Your task to perform on an android device: toggle location history Image 0: 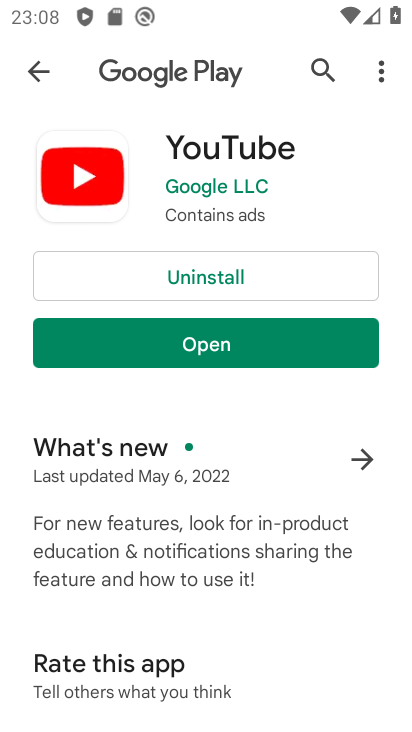
Step 0: press home button
Your task to perform on an android device: toggle location history Image 1: 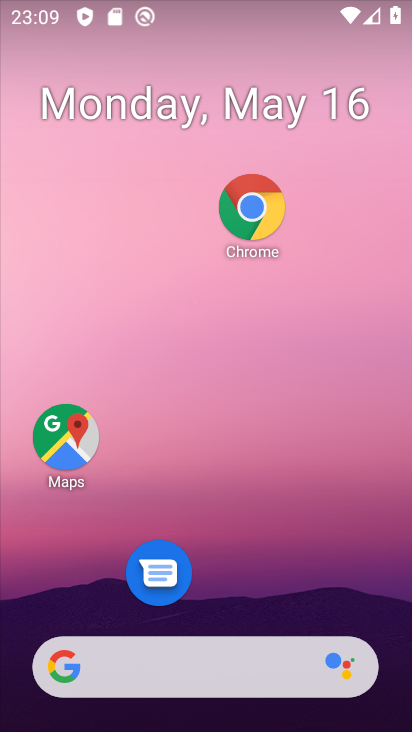
Step 1: drag from (286, 658) to (344, 84)
Your task to perform on an android device: toggle location history Image 2: 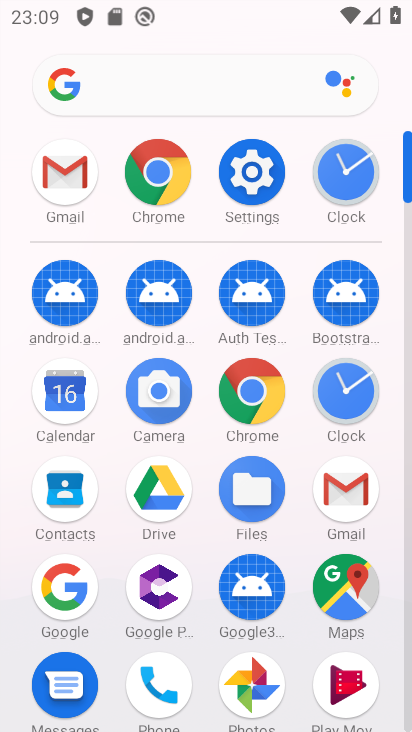
Step 2: drag from (294, 623) to (312, 320)
Your task to perform on an android device: toggle location history Image 3: 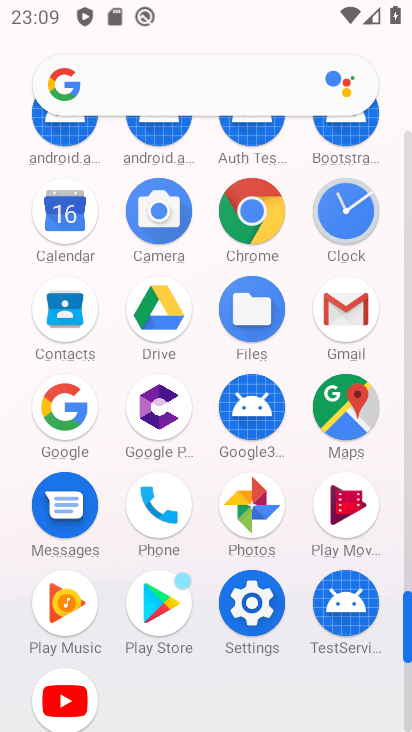
Step 3: click (268, 620)
Your task to perform on an android device: toggle location history Image 4: 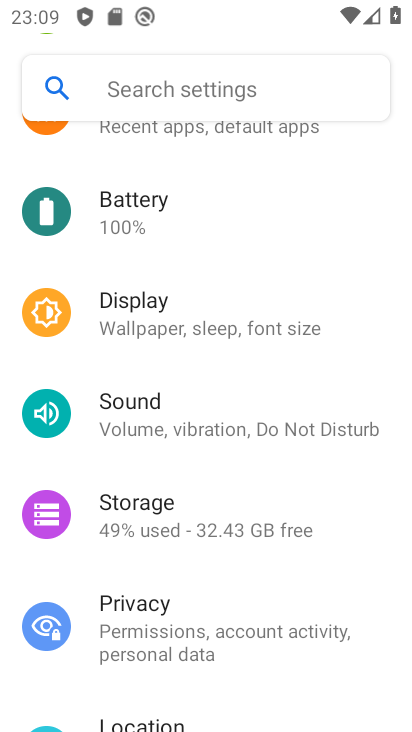
Step 4: drag from (191, 663) to (163, 223)
Your task to perform on an android device: toggle location history Image 5: 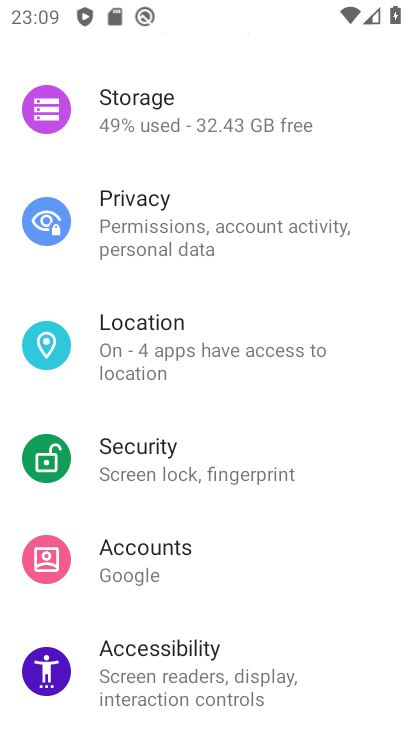
Step 5: click (181, 367)
Your task to perform on an android device: toggle location history Image 6: 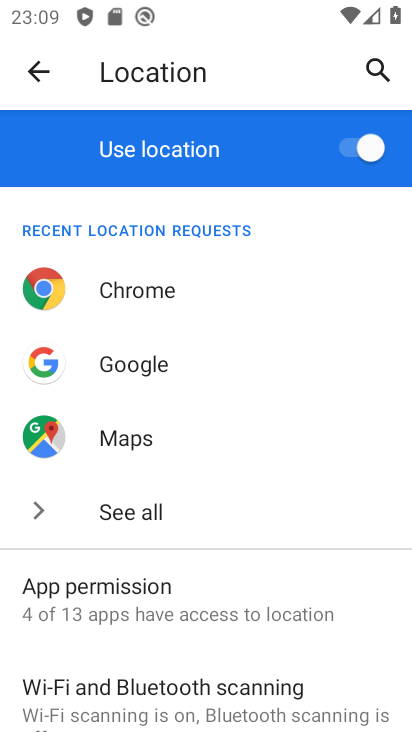
Step 6: drag from (206, 686) to (249, 260)
Your task to perform on an android device: toggle location history Image 7: 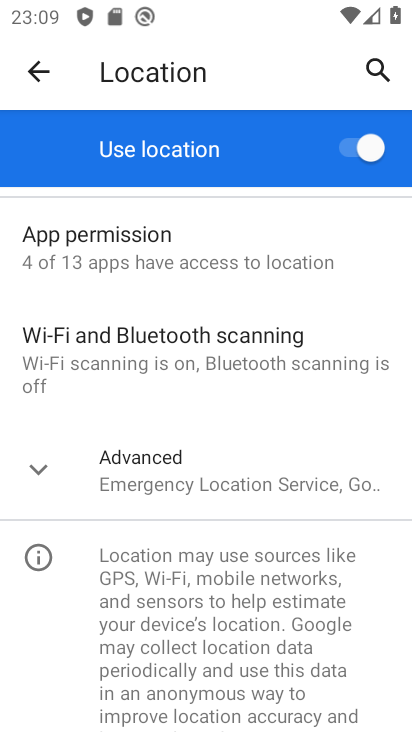
Step 7: click (279, 478)
Your task to perform on an android device: toggle location history Image 8: 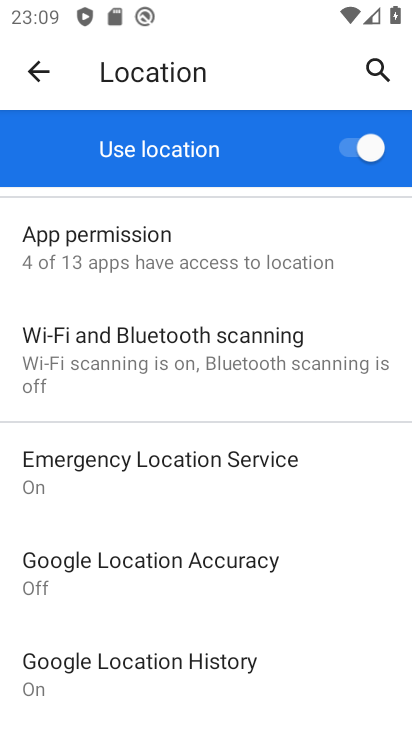
Step 8: click (187, 672)
Your task to perform on an android device: toggle location history Image 9: 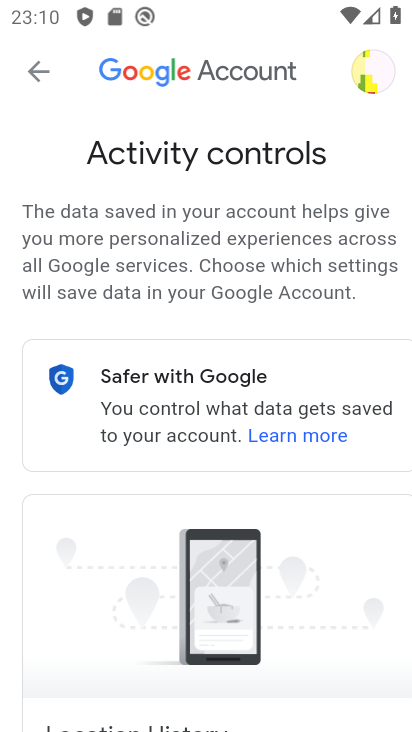
Step 9: drag from (263, 650) to (293, 100)
Your task to perform on an android device: toggle location history Image 10: 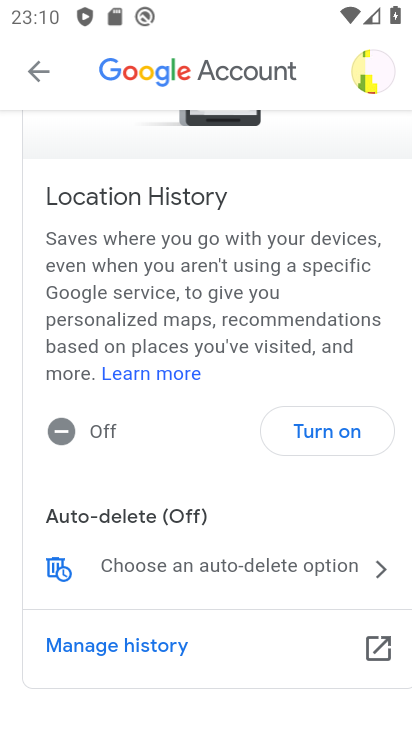
Step 10: click (337, 421)
Your task to perform on an android device: toggle location history Image 11: 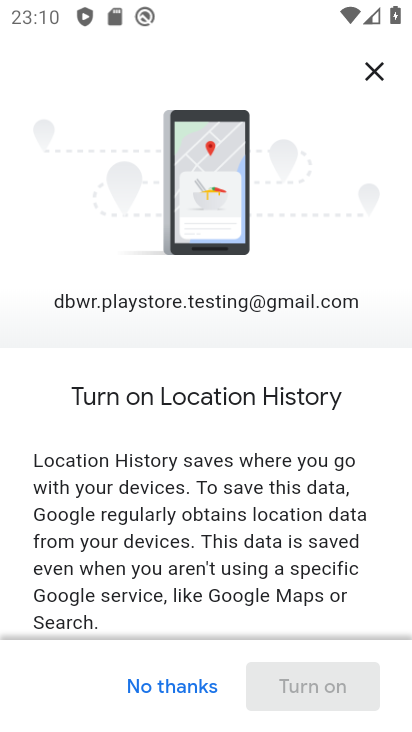
Step 11: drag from (279, 604) to (336, 179)
Your task to perform on an android device: toggle location history Image 12: 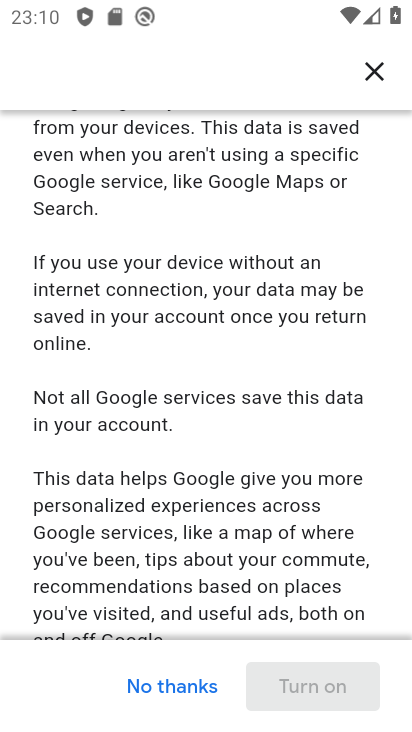
Step 12: drag from (340, 617) to (288, 128)
Your task to perform on an android device: toggle location history Image 13: 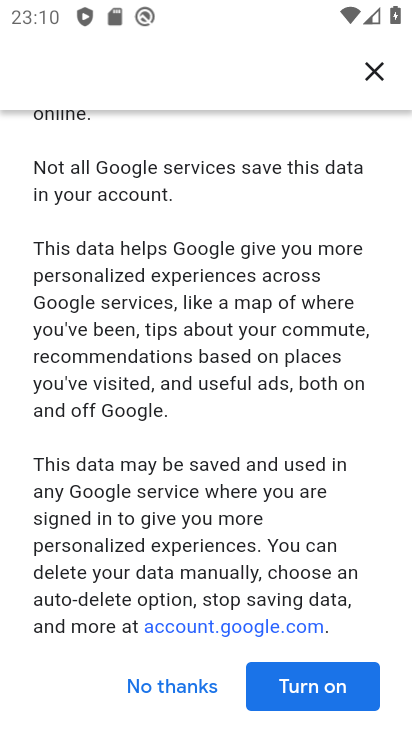
Step 13: click (289, 679)
Your task to perform on an android device: toggle location history Image 14: 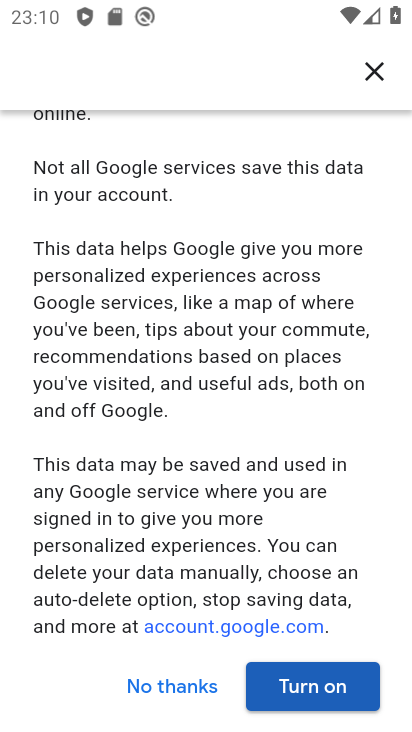
Step 14: click (302, 693)
Your task to perform on an android device: toggle location history Image 15: 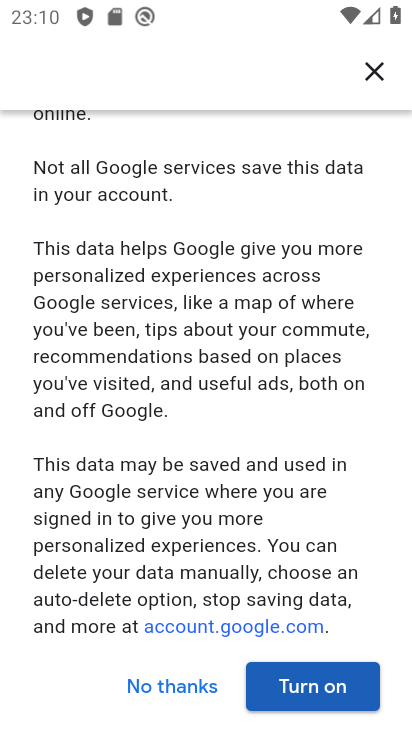
Step 15: click (305, 683)
Your task to perform on an android device: toggle location history Image 16: 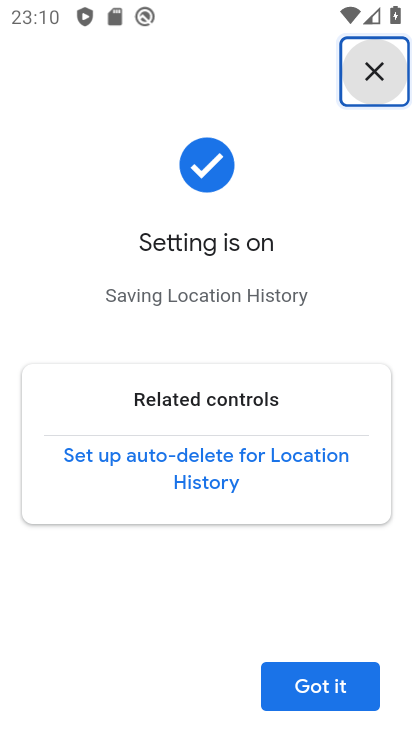
Step 16: task complete